Your task to perform on an android device: Search for Mexican restaurants on Maps Image 0: 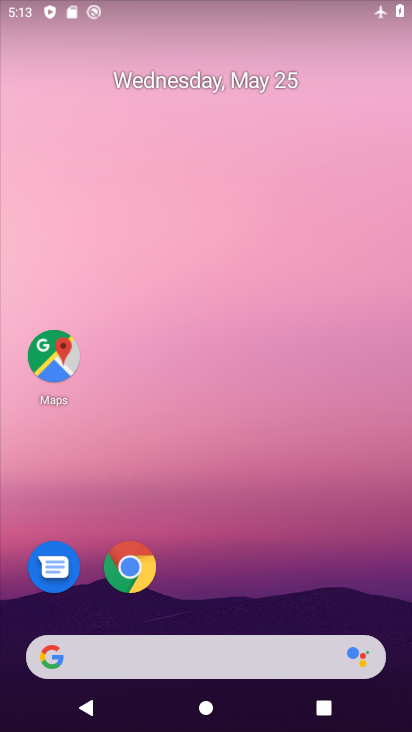
Step 0: drag from (232, 524) to (222, 49)
Your task to perform on an android device: Search for Mexican restaurants on Maps Image 1: 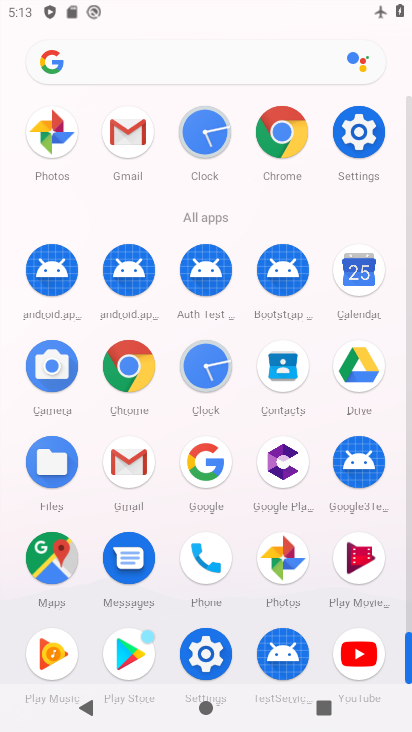
Step 1: drag from (5, 526) to (18, 259)
Your task to perform on an android device: Search for Mexican restaurants on Maps Image 2: 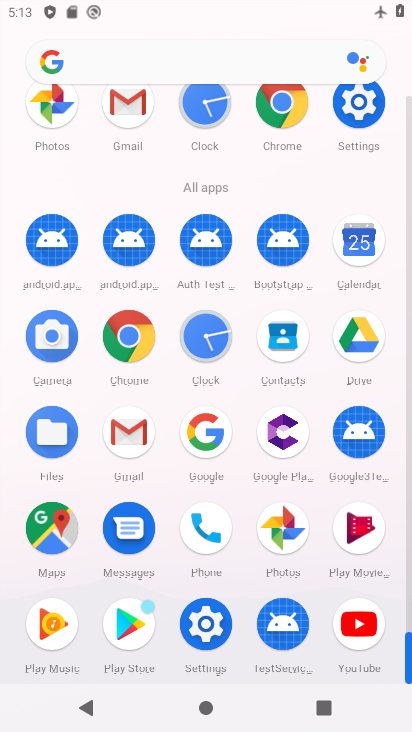
Step 2: click (52, 524)
Your task to perform on an android device: Search for Mexican restaurants on Maps Image 3: 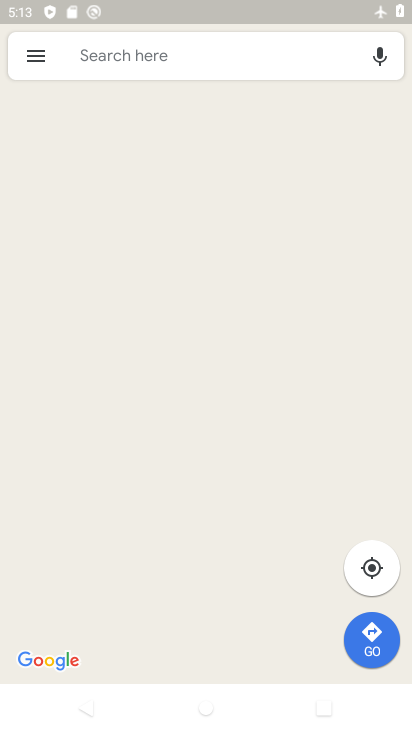
Step 3: click (216, 54)
Your task to perform on an android device: Search for Mexican restaurants on Maps Image 4: 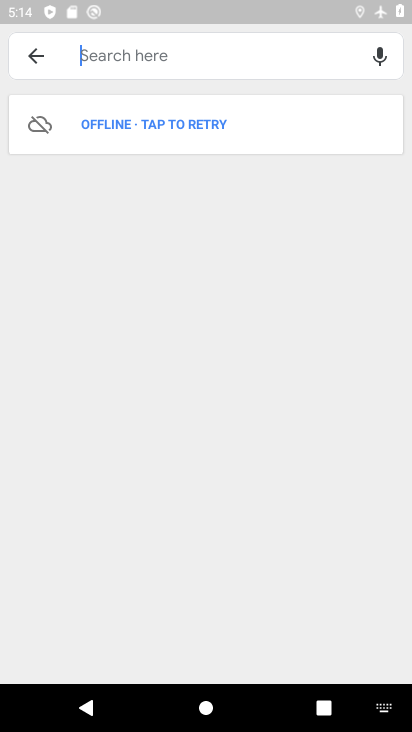
Step 4: type "Mexican restaurants"
Your task to perform on an android device: Search for Mexican restaurants on Maps Image 5: 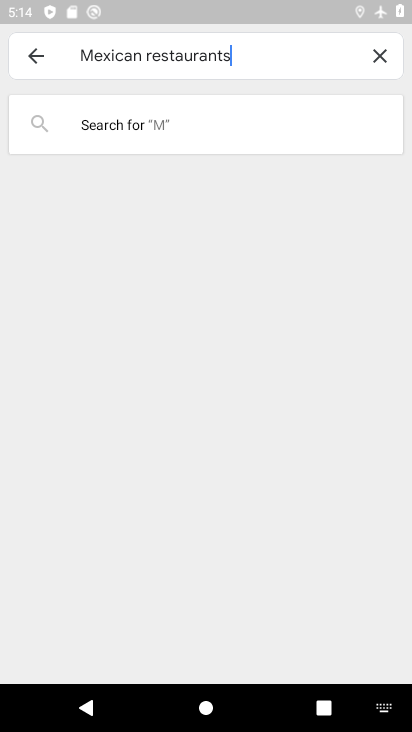
Step 5: type ""
Your task to perform on an android device: Search for Mexican restaurants on Maps Image 6: 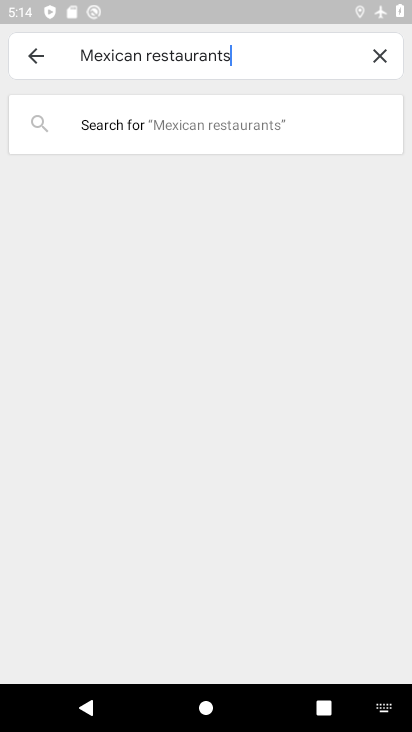
Step 6: click (190, 126)
Your task to perform on an android device: Search for Mexican restaurants on Maps Image 7: 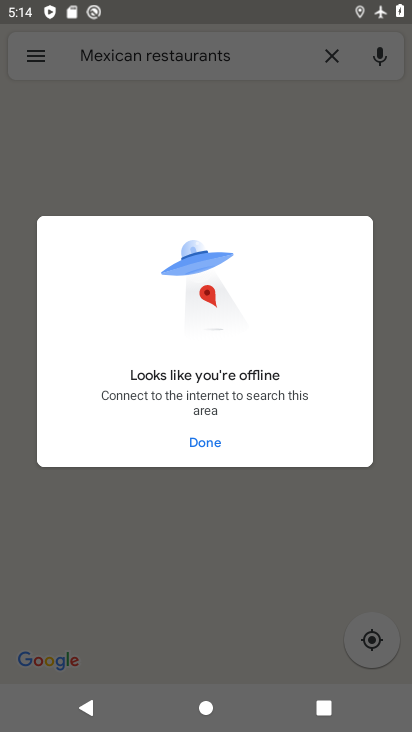
Step 7: task complete